Your task to perform on an android device: Open the web browser Image 0: 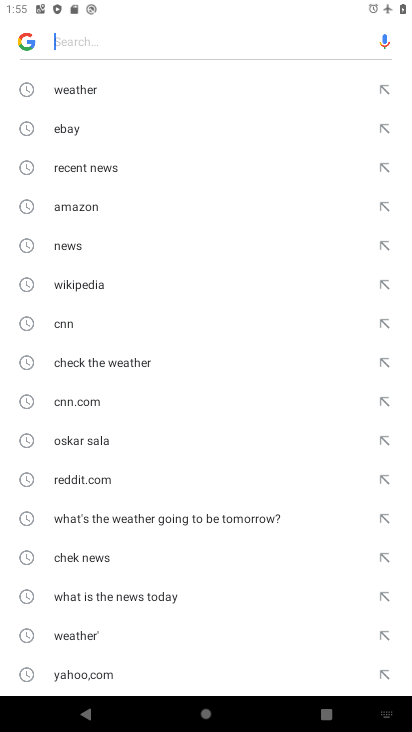
Step 0: press home button
Your task to perform on an android device: Open the web browser Image 1: 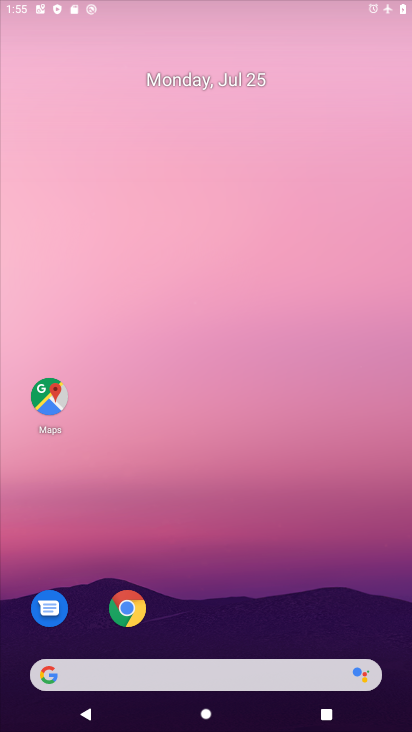
Step 1: drag from (315, 579) to (299, 94)
Your task to perform on an android device: Open the web browser Image 2: 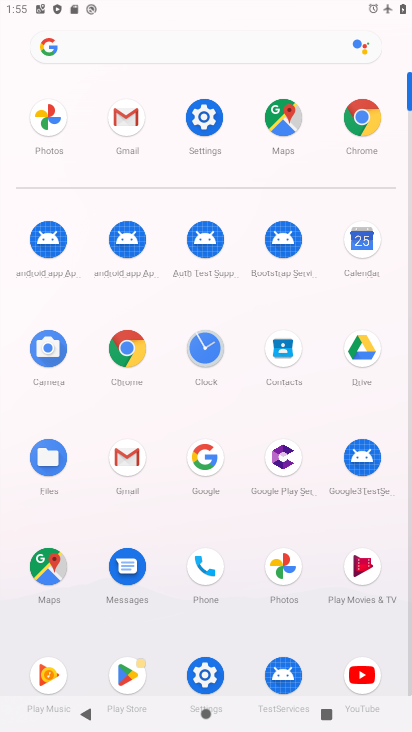
Step 2: click (123, 344)
Your task to perform on an android device: Open the web browser Image 3: 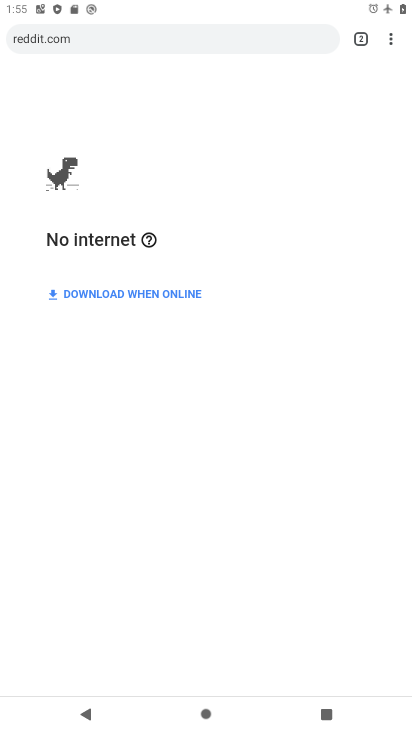
Step 3: task complete